Your task to perform on an android device: Open sound settings Image 0: 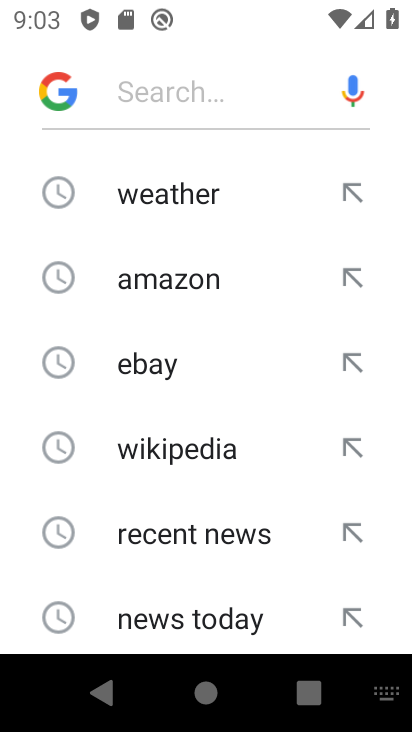
Step 0: press home button
Your task to perform on an android device: Open sound settings Image 1: 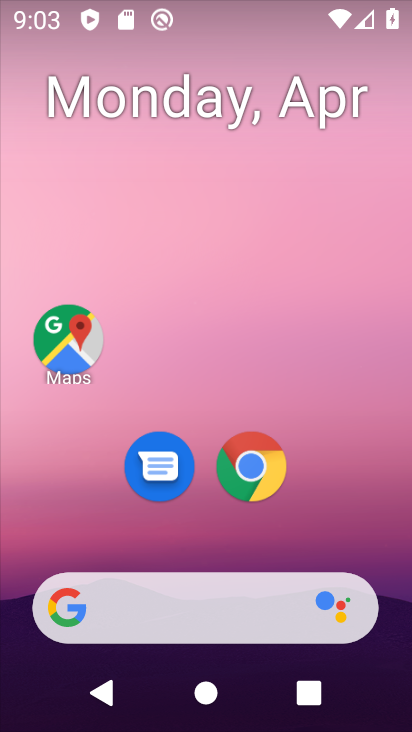
Step 1: drag from (196, 549) to (282, 74)
Your task to perform on an android device: Open sound settings Image 2: 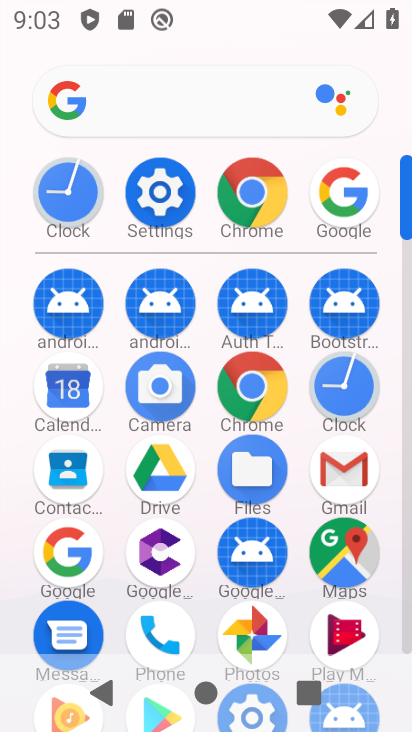
Step 2: click (163, 226)
Your task to perform on an android device: Open sound settings Image 3: 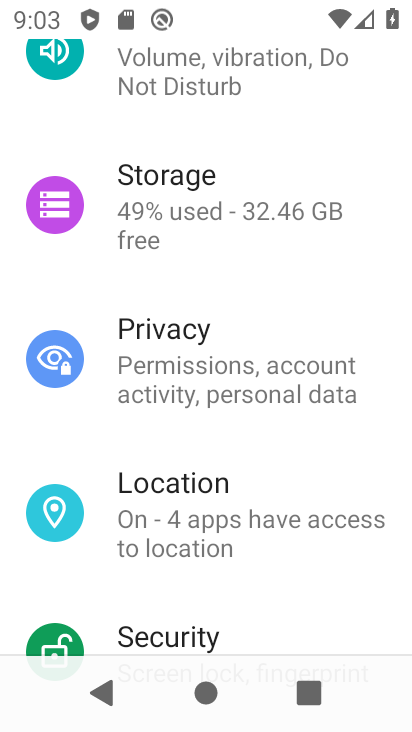
Step 3: drag from (257, 551) to (271, 322)
Your task to perform on an android device: Open sound settings Image 4: 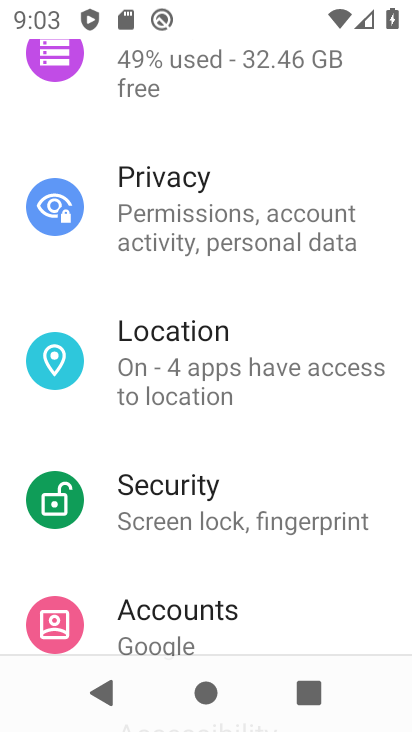
Step 4: drag from (282, 239) to (310, 338)
Your task to perform on an android device: Open sound settings Image 5: 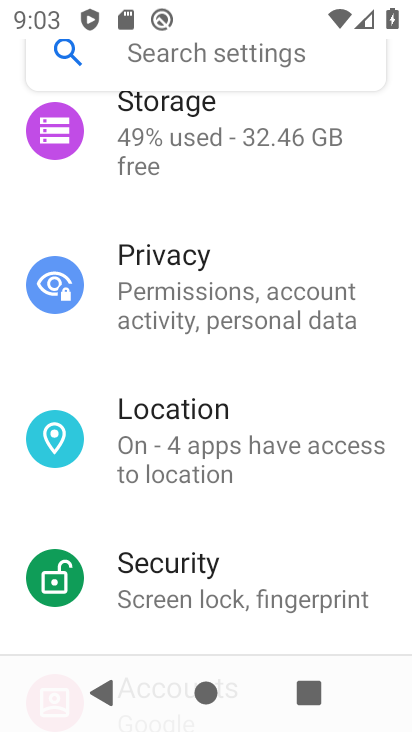
Step 5: drag from (280, 261) to (301, 373)
Your task to perform on an android device: Open sound settings Image 6: 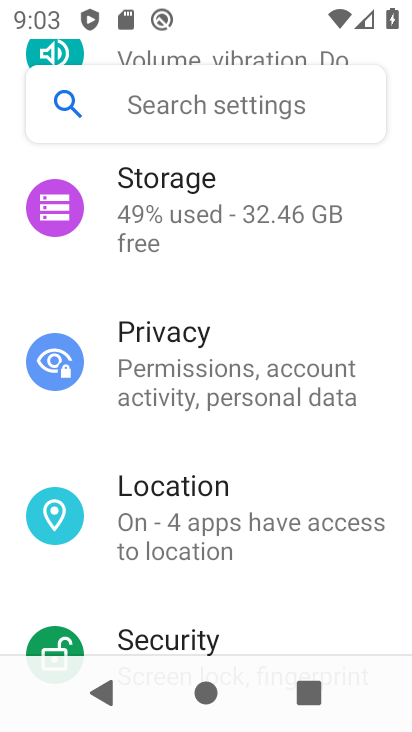
Step 6: drag from (275, 278) to (305, 375)
Your task to perform on an android device: Open sound settings Image 7: 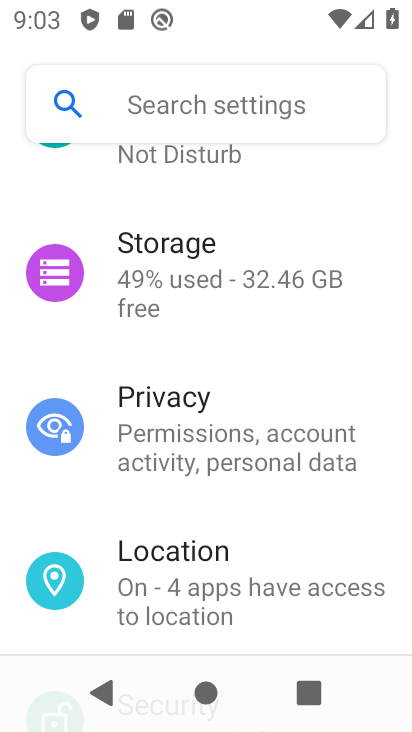
Step 7: drag from (276, 256) to (311, 400)
Your task to perform on an android device: Open sound settings Image 8: 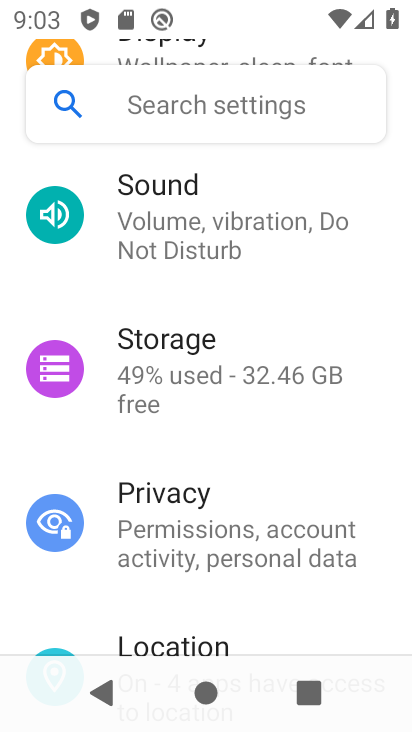
Step 8: drag from (287, 322) to (311, 423)
Your task to perform on an android device: Open sound settings Image 9: 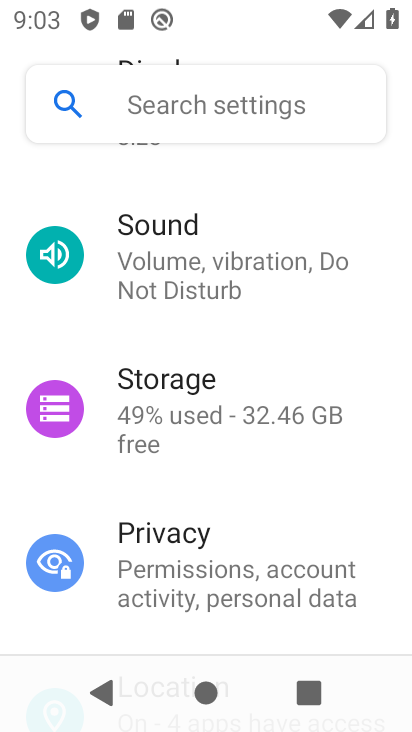
Step 9: click (168, 224)
Your task to perform on an android device: Open sound settings Image 10: 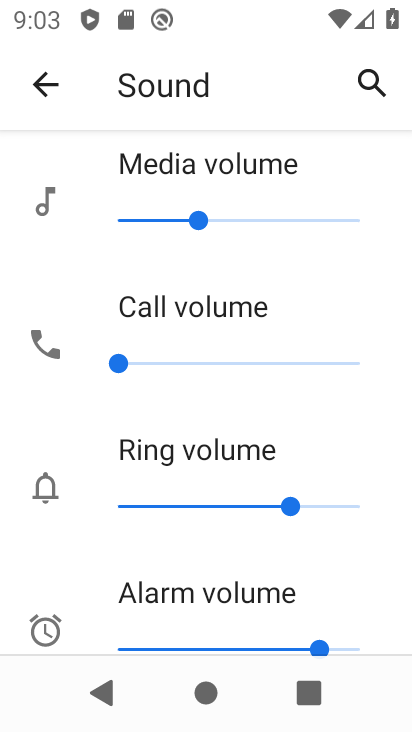
Step 10: task complete